Your task to perform on an android device: toggle notifications settings in the gmail app Image 0: 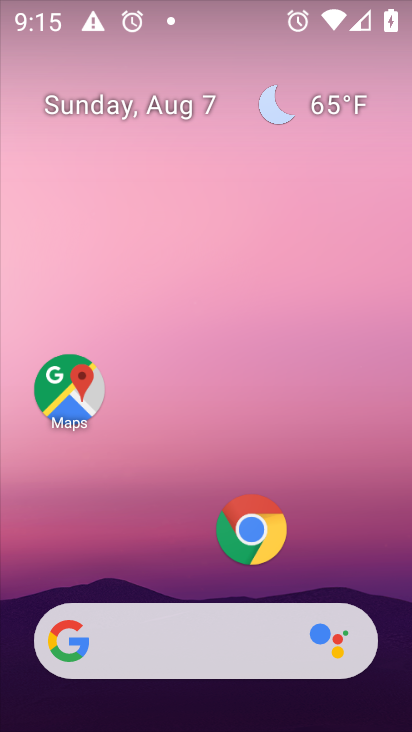
Step 0: drag from (148, 579) to (195, 159)
Your task to perform on an android device: toggle notifications settings in the gmail app Image 1: 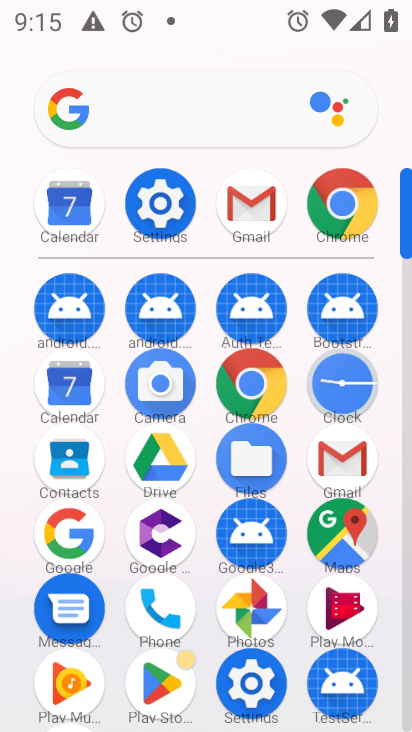
Step 1: click (335, 458)
Your task to perform on an android device: toggle notifications settings in the gmail app Image 2: 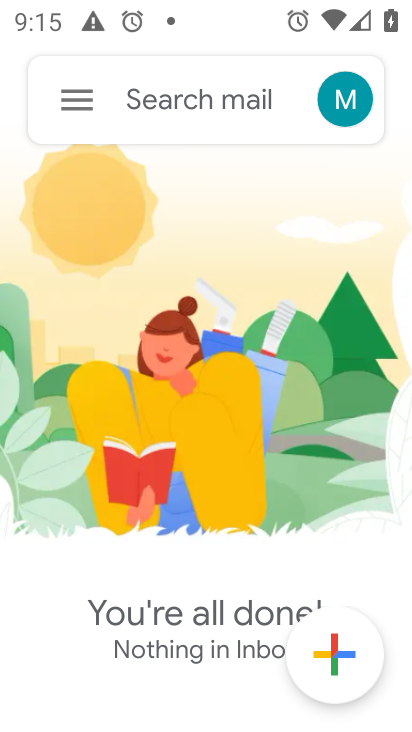
Step 2: click (69, 97)
Your task to perform on an android device: toggle notifications settings in the gmail app Image 3: 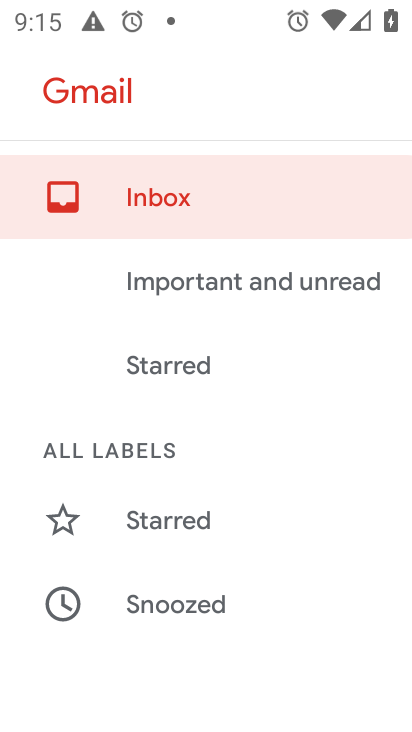
Step 3: drag from (128, 555) to (175, 35)
Your task to perform on an android device: toggle notifications settings in the gmail app Image 4: 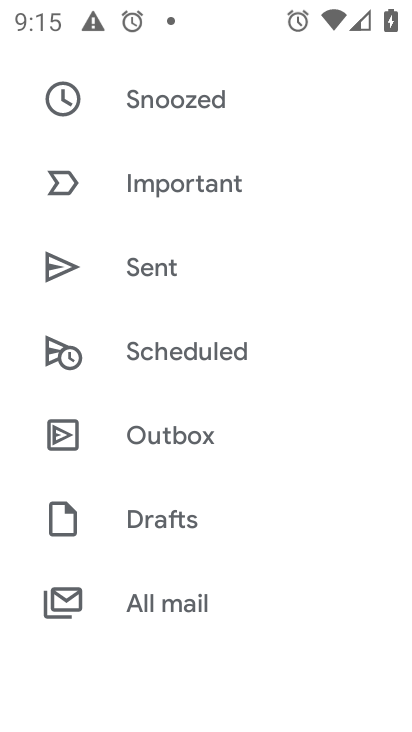
Step 4: drag from (141, 597) to (167, 157)
Your task to perform on an android device: toggle notifications settings in the gmail app Image 5: 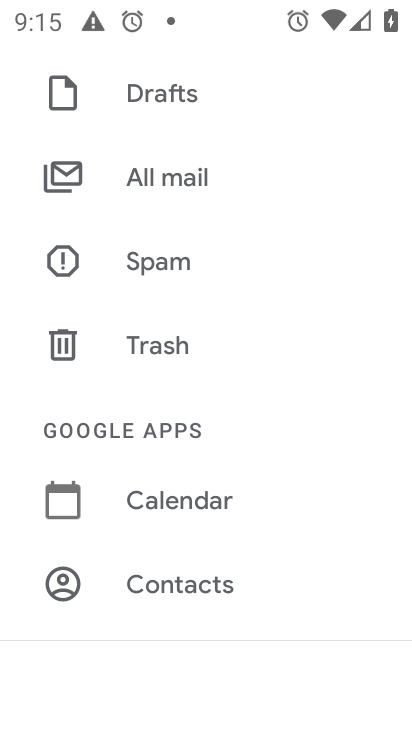
Step 5: drag from (189, 600) to (206, 381)
Your task to perform on an android device: toggle notifications settings in the gmail app Image 6: 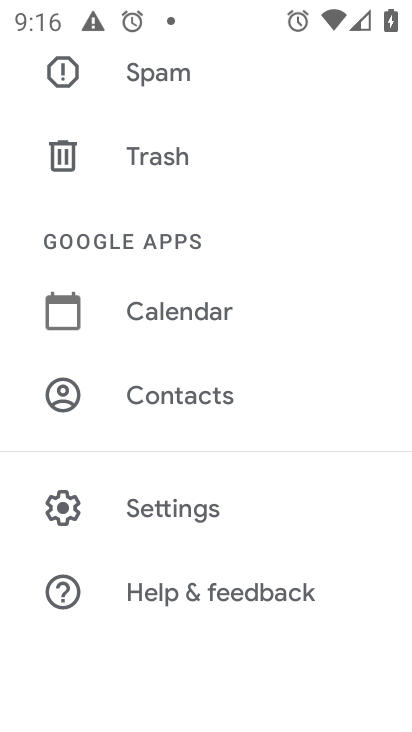
Step 6: click (139, 524)
Your task to perform on an android device: toggle notifications settings in the gmail app Image 7: 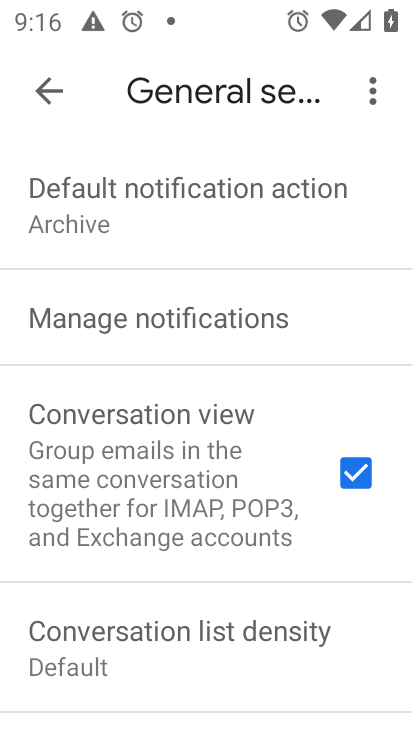
Step 7: click (160, 321)
Your task to perform on an android device: toggle notifications settings in the gmail app Image 8: 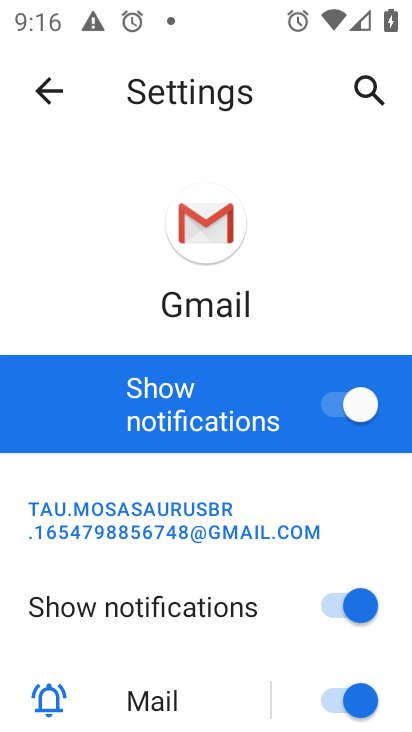
Step 8: click (310, 399)
Your task to perform on an android device: toggle notifications settings in the gmail app Image 9: 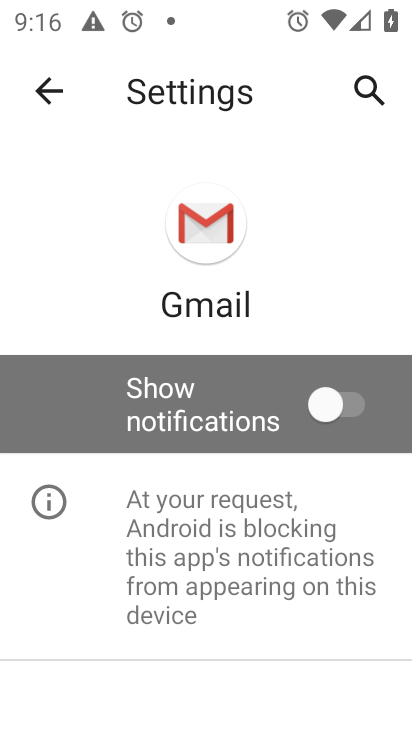
Step 9: task complete